Your task to perform on an android device: Search for vegetarian restaurants on Maps Image 0: 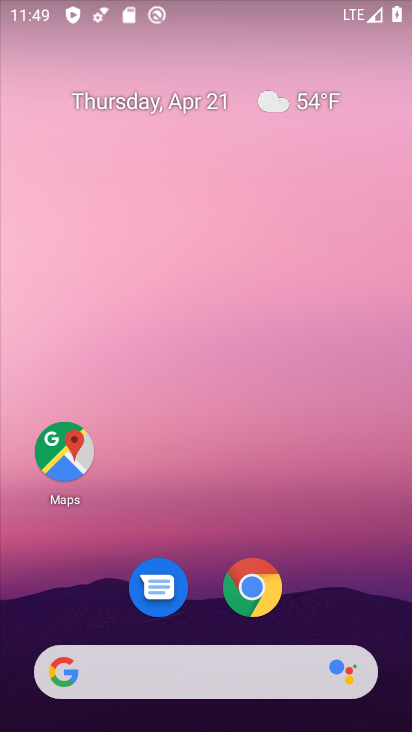
Step 0: click (54, 451)
Your task to perform on an android device: Search for vegetarian restaurants on Maps Image 1: 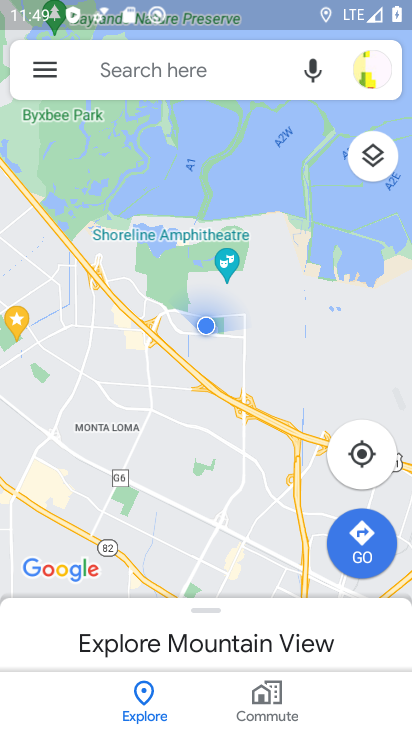
Step 1: click (146, 74)
Your task to perform on an android device: Search for vegetarian restaurants on Maps Image 2: 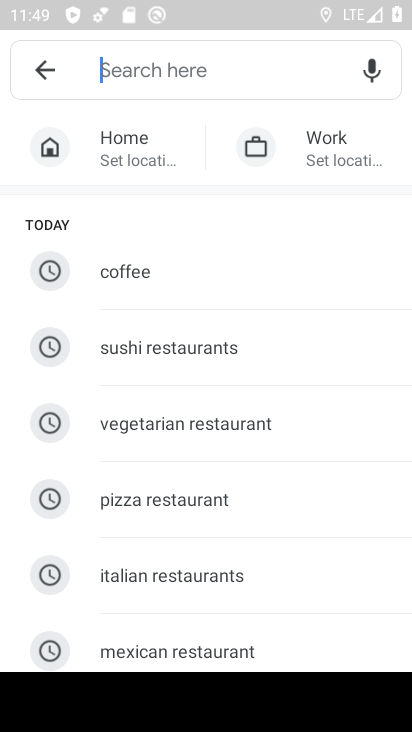
Step 2: click (218, 418)
Your task to perform on an android device: Search for vegetarian restaurants on Maps Image 3: 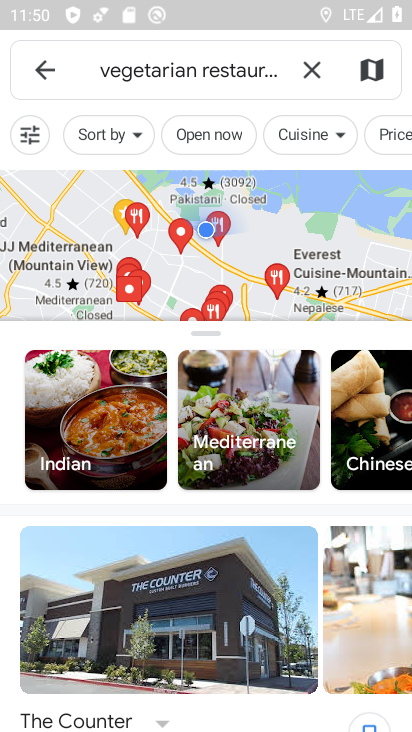
Step 3: task complete